Your task to perform on an android device: turn pop-ups off in chrome Image 0: 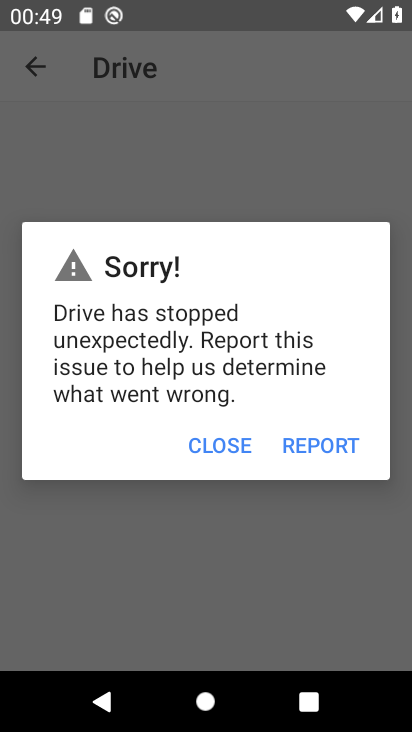
Step 0: press home button
Your task to perform on an android device: turn pop-ups off in chrome Image 1: 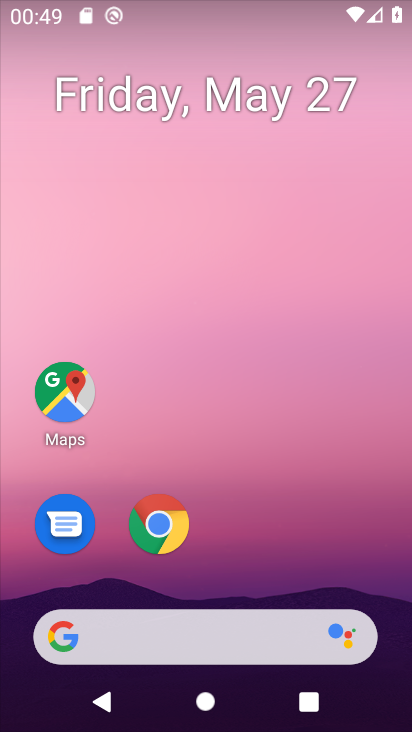
Step 1: click (149, 513)
Your task to perform on an android device: turn pop-ups off in chrome Image 2: 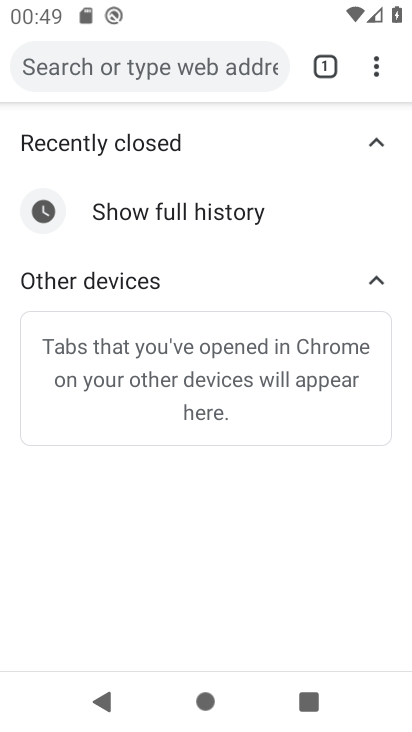
Step 2: click (376, 60)
Your task to perform on an android device: turn pop-ups off in chrome Image 3: 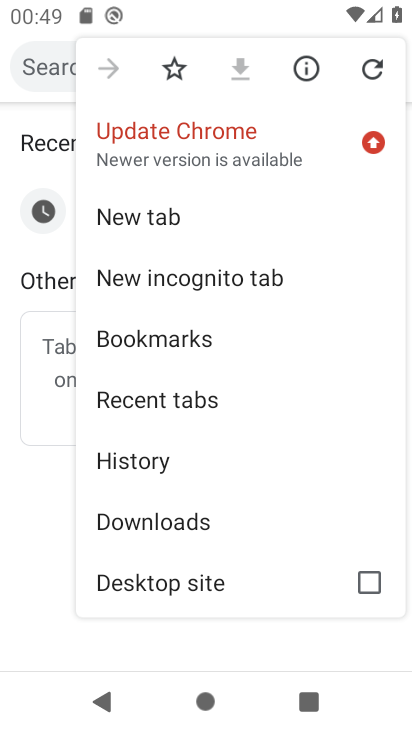
Step 3: drag from (273, 476) to (259, 216)
Your task to perform on an android device: turn pop-ups off in chrome Image 4: 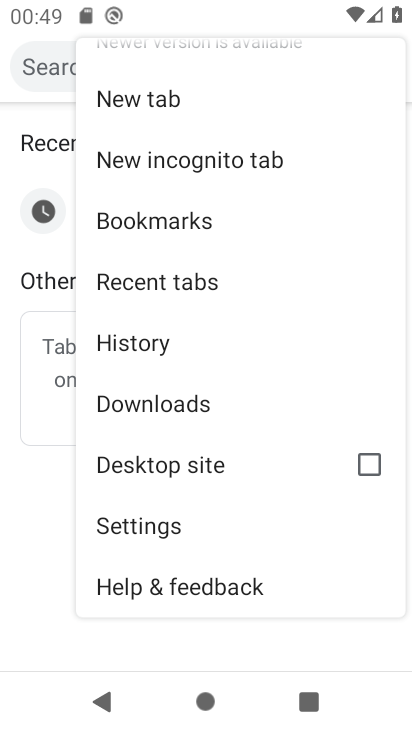
Step 4: click (192, 525)
Your task to perform on an android device: turn pop-ups off in chrome Image 5: 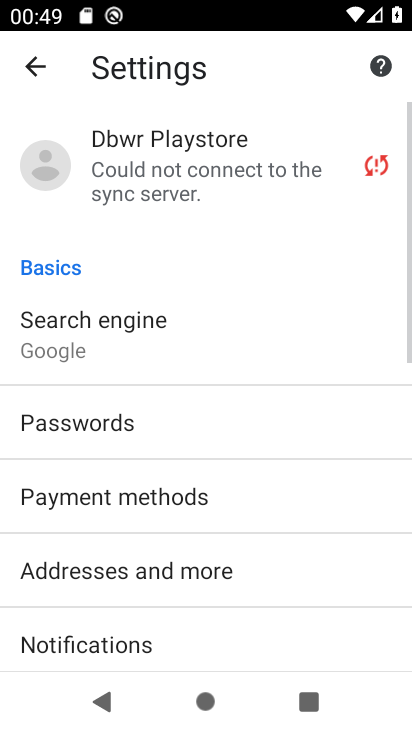
Step 5: drag from (188, 528) to (174, 235)
Your task to perform on an android device: turn pop-ups off in chrome Image 6: 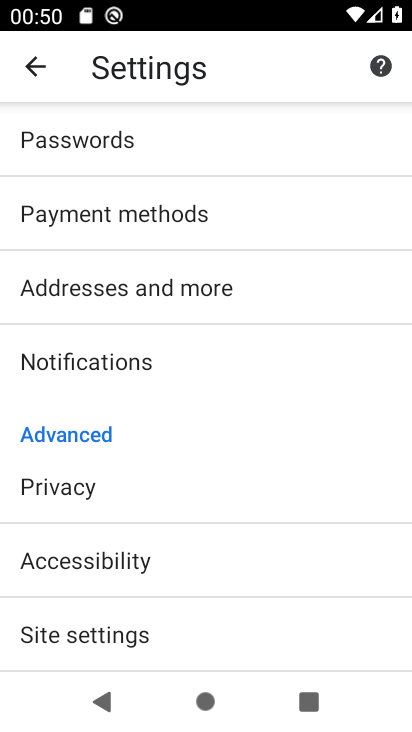
Step 6: click (208, 637)
Your task to perform on an android device: turn pop-ups off in chrome Image 7: 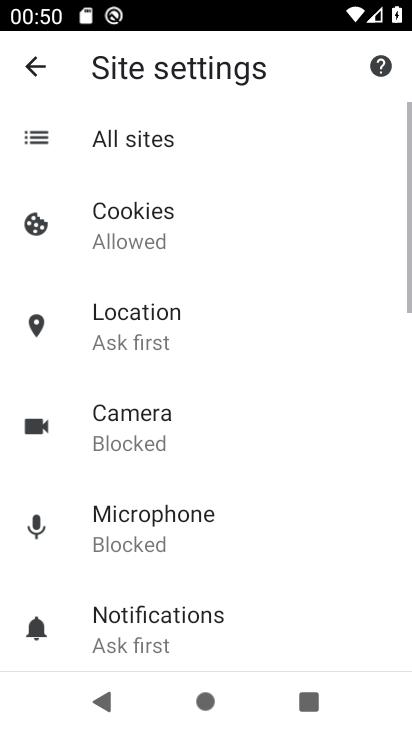
Step 7: drag from (255, 561) to (267, 208)
Your task to perform on an android device: turn pop-ups off in chrome Image 8: 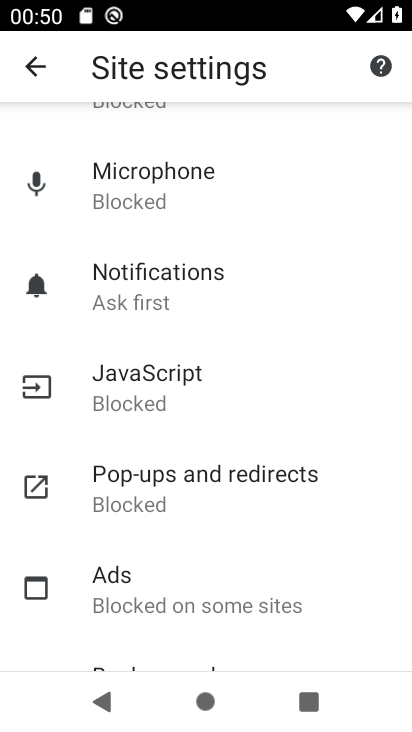
Step 8: click (247, 492)
Your task to perform on an android device: turn pop-ups off in chrome Image 9: 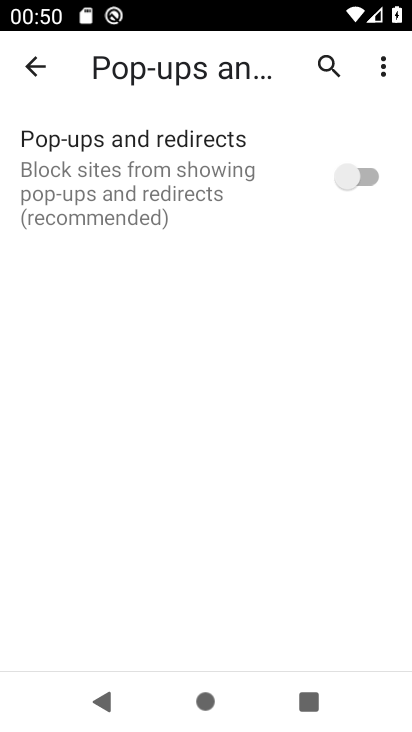
Step 9: task complete